Your task to perform on an android device: read, delete, or share a saved page in the chrome app Image 0: 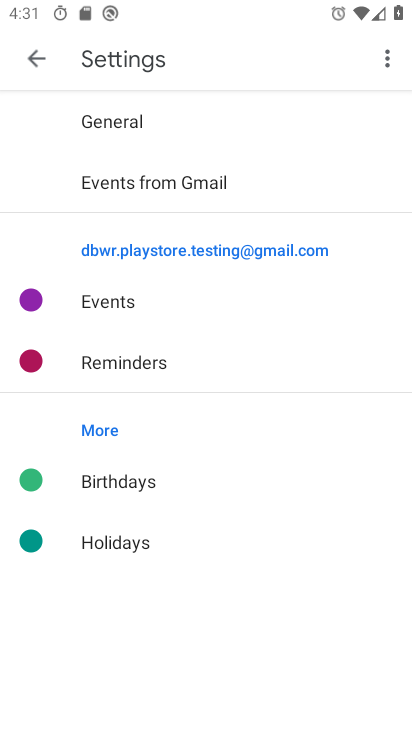
Step 0: press home button
Your task to perform on an android device: read, delete, or share a saved page in the chrome app Image 1: 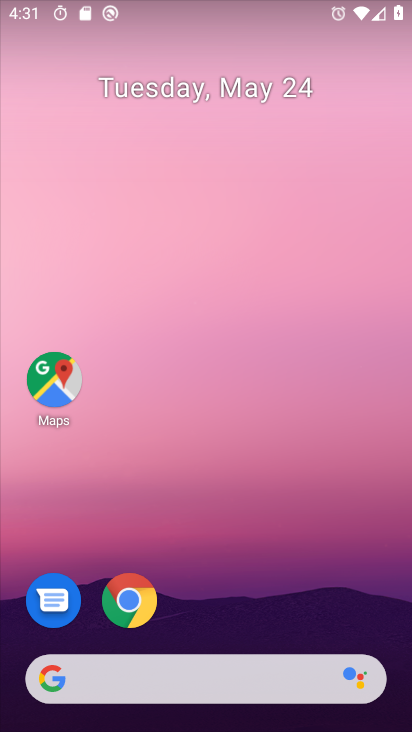
Step 1: drag from (269, 656) to (353, 13)
Your task to perform on an android device: read, delete, or share a saved page in the chrome app Image 2: 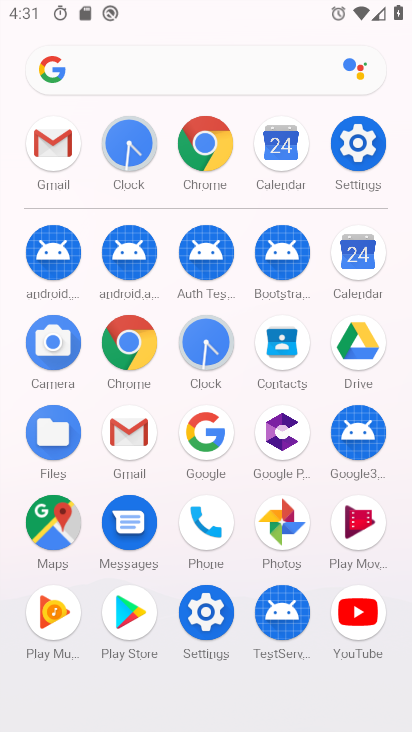
Step 2: click (127, 356)
Your task to perform on an android device: read, delete, or share a saved page in the chrome app Image 3: 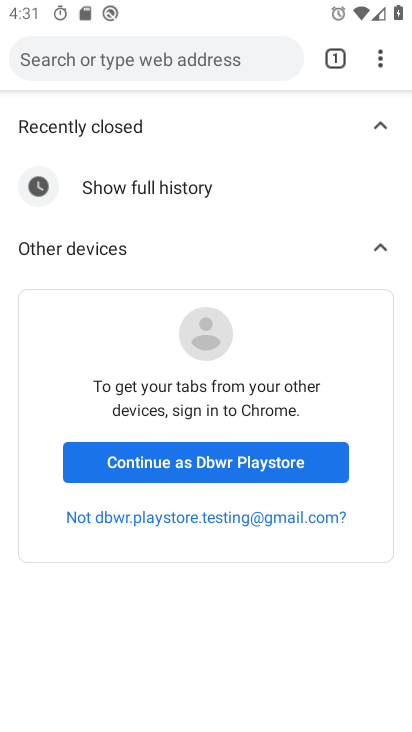
Step 3: click (378, 58)
Your task to perform on an android device: read, delete, or share a saved page in the chrome app Image 4: 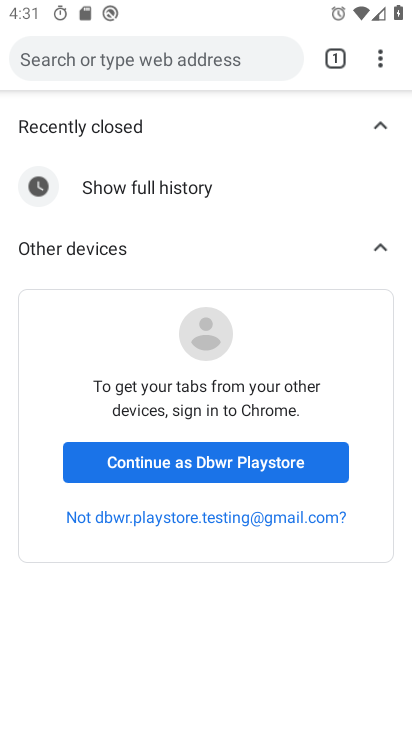
Step 4: click (378, 58)
Your task to perform on an android device: read, delete, or share a saved page in the chrome app Image 5: 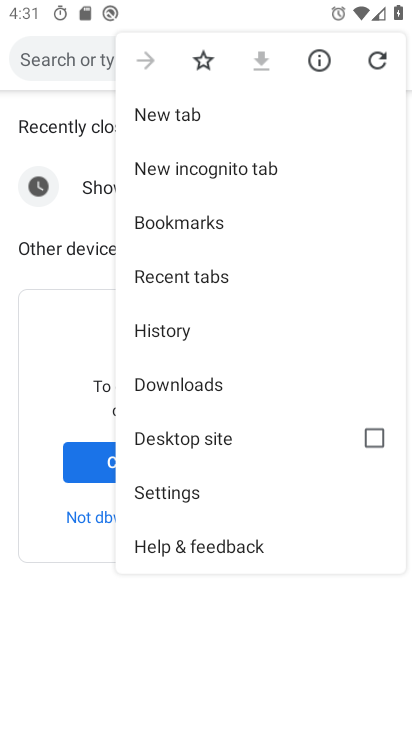
Step 5: click (191, 381)
Your task to perform on an android device: read, delete, or share a saved page in the chrome app Image 6: 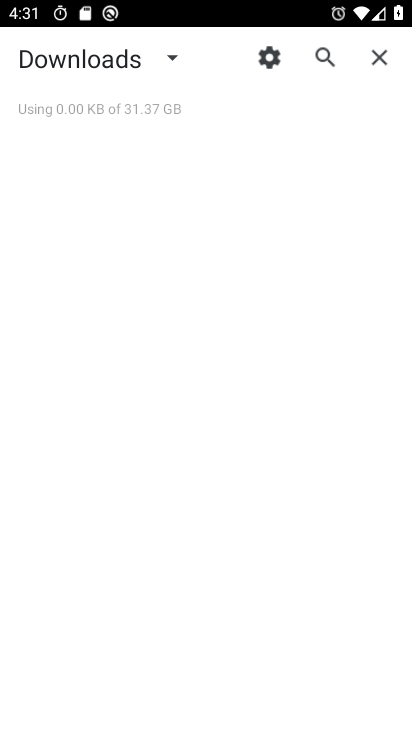
Step 6: task complete